Your task to perform on an android device: Go to eBay Image 0: 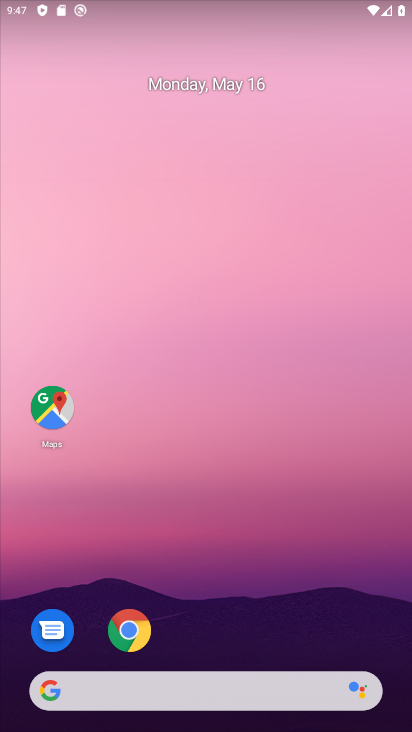
Step 0: click (113, 619)
Your task to perform on an android device: Go to eBay Image 1: 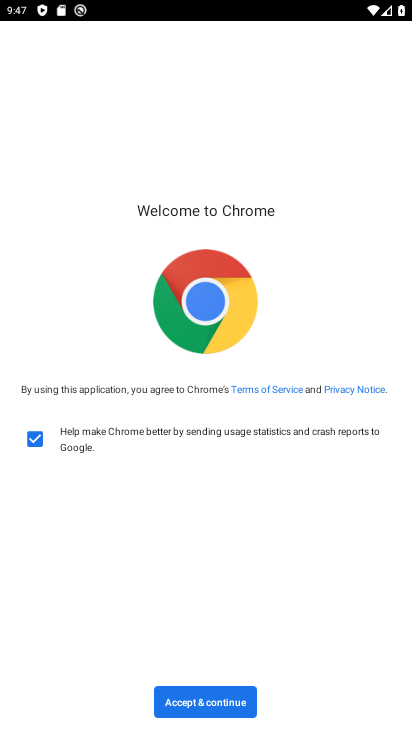
Step 1: click (201, 704)
Your task to perform on an android device: Go to eBay Image 2: 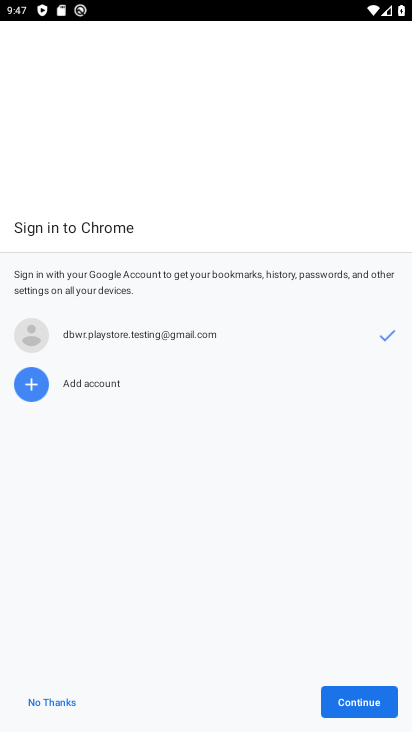
Step 2: click (341, 710)
Your task to perform on an android device: Go to eBay Image 3: 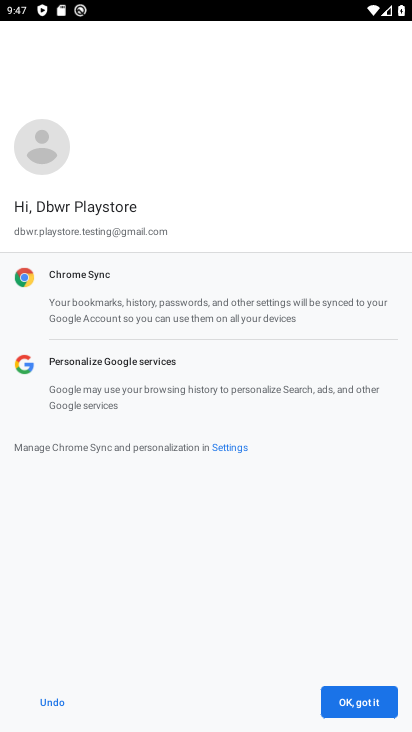
Step 3: click (344, 709)
Your task to perform on an android device: Go to eBay Image 4: 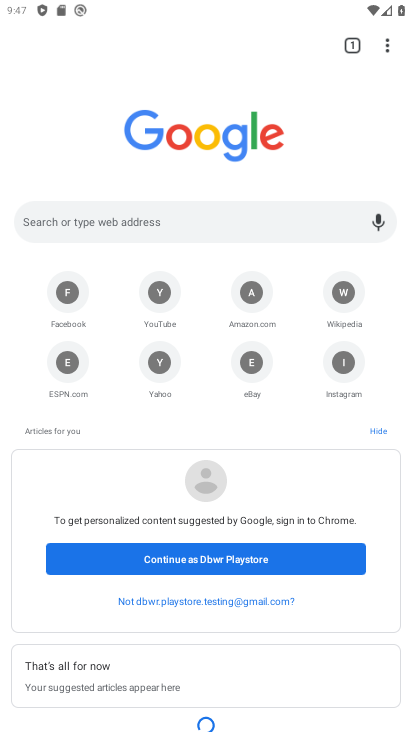
Step 4: click (170, 53)
Your task to perform on an android device: Go to eBay Image 5: 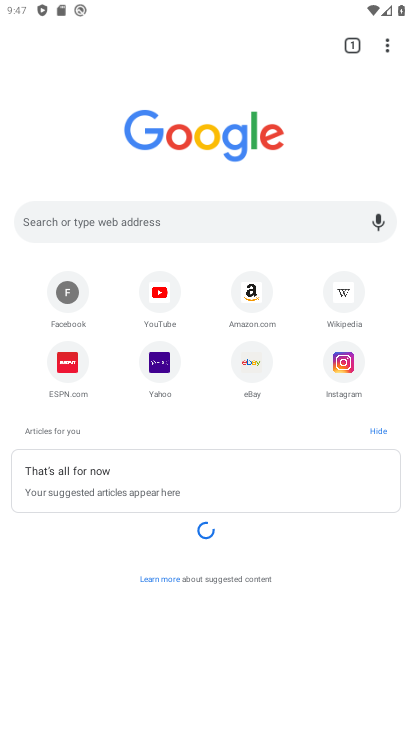
Step 5: click (173, 237)
Your task to perform on an android device: Go to eBay Image 6: 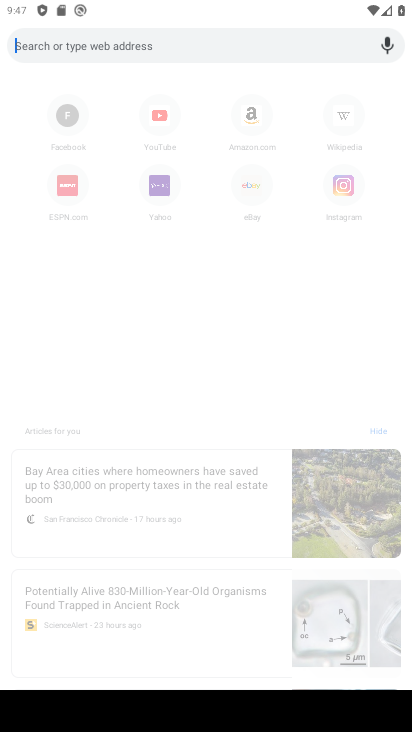
Step 6: click (259, 196)
Your task to perform on an android device: Go to eBay Image 7: 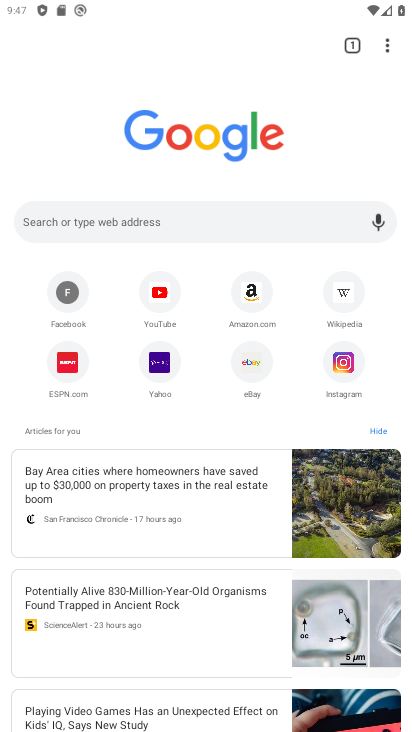
Step 7: click (255, 354)
Your task to perform on an android device: Go to eBay Image 8: 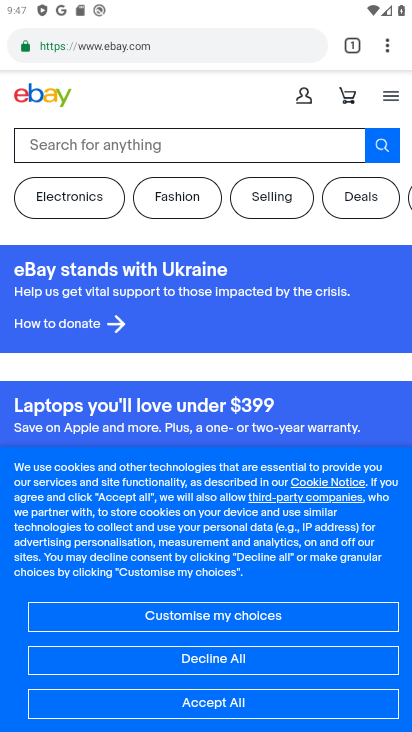
Step 8: task complete